Your task to perform on an android device: visit the assistant section in the google photos Image 0: 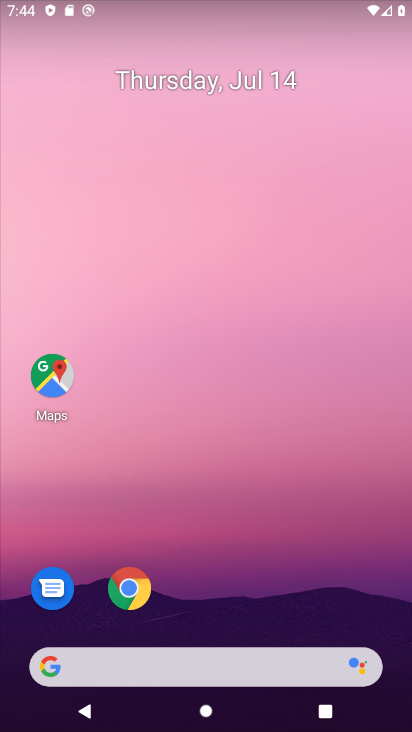
Step 0: drag from (283, 593) to (218, 123)
Your task to perform on an android device: visit the assistant section in the google photos Image 1: 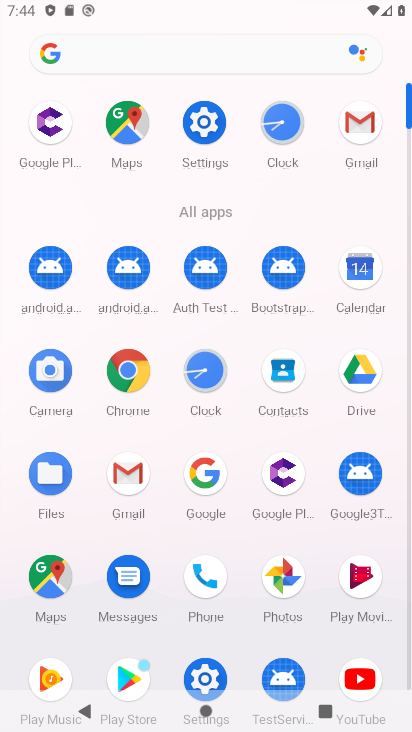
Step 1: click (297, 580)
Your task to perform on an android device: visit the assistant section in the google photos Image 2: 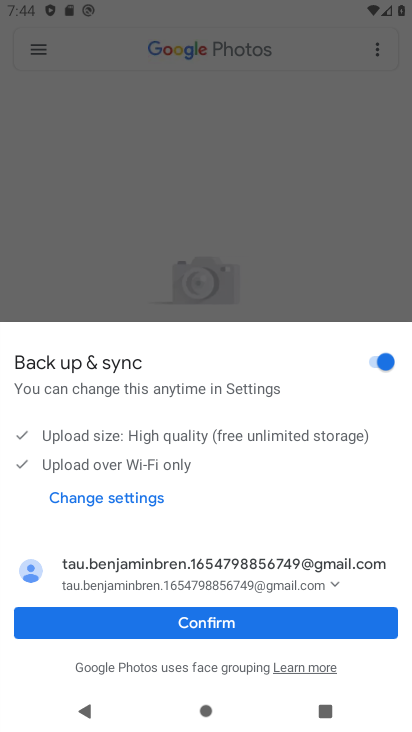
Step 2: click (217, 634)
Your task to perform on an android device: visit the assistant section in the google photos Image 3: 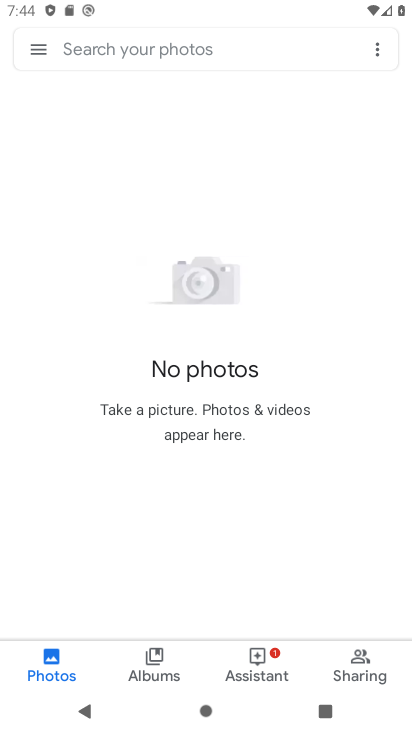
Step 3: click (273, 659)
Your task to perform on an android device: visit the assistant section in the google photos Image 4: 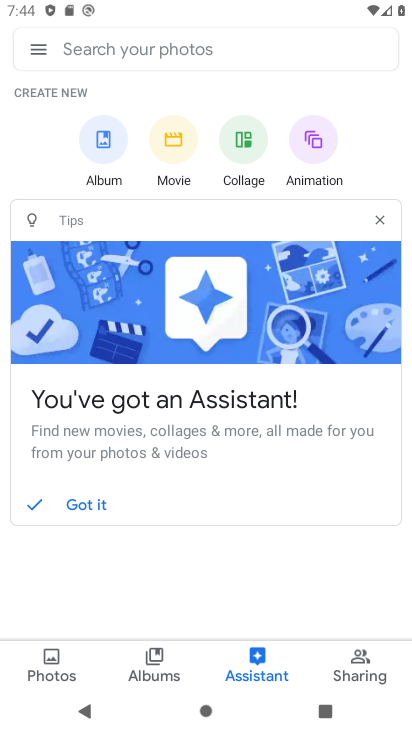
Step 4: task complete